Your task to perform on an android device: Go to Maps Image 0: 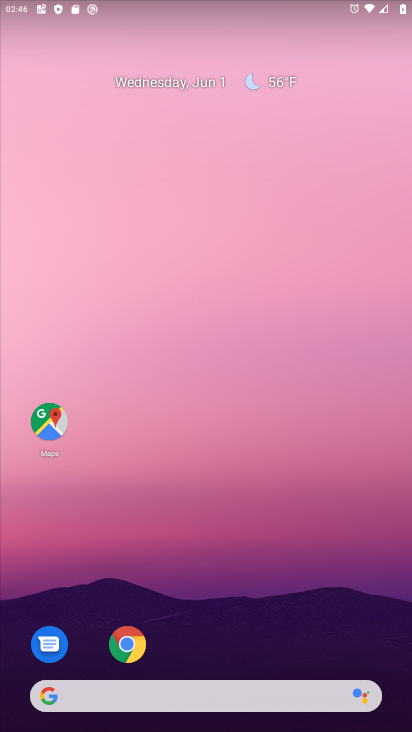
Step 0: click (38, 429)
Your task to perform on an android device: Go to Maps Image 1: 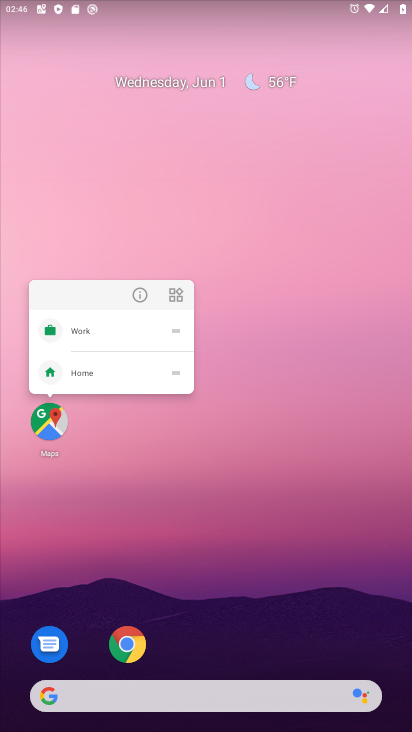
Step 1: click (59, 425)
Your task to perform on an android device: Go to Maps Image 2: 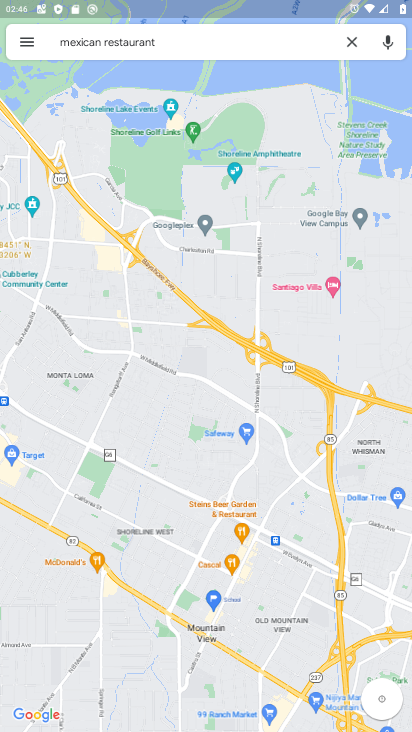
Step 2: task complete